Your task to perform on an android device: Open Chrome and go to settings Image 0: 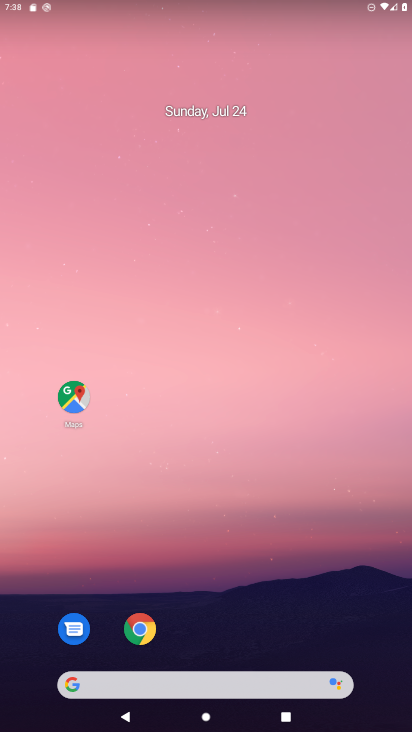
Step 0: drag from (363, 629) to (167, 35)
Your task to perform on an android device: Open Chrome and go to settings Image 1: 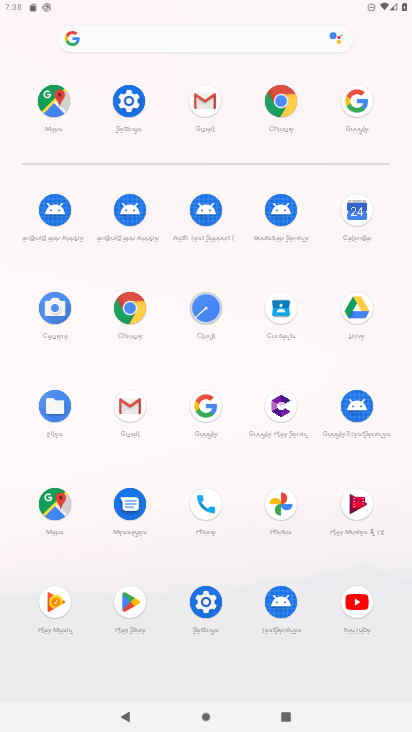
Step 1: click (122, 318)
Your task to perform on an android device: Open Chrome and go to settings Image 2: 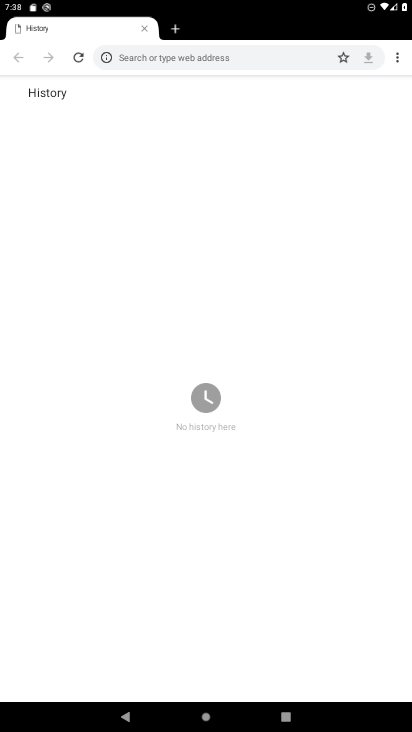
Step 2: click (392, 58)
Your task to perform on an android device: Open Chrome and go to settings Image 3: 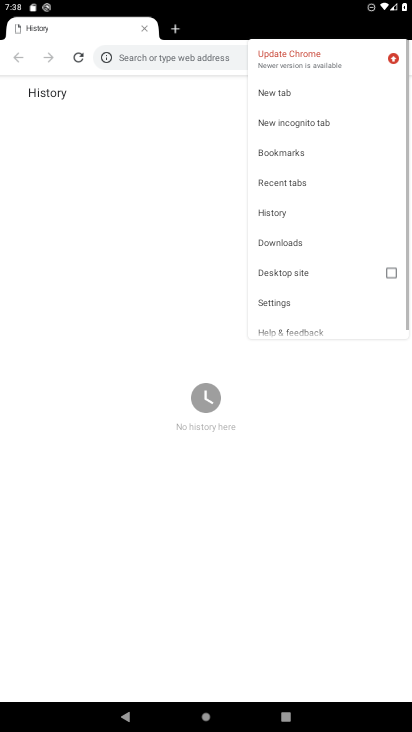
Step 3: click (287, 302)
Your task to perform on an android device: Open Chrome and go to settings Image 4: 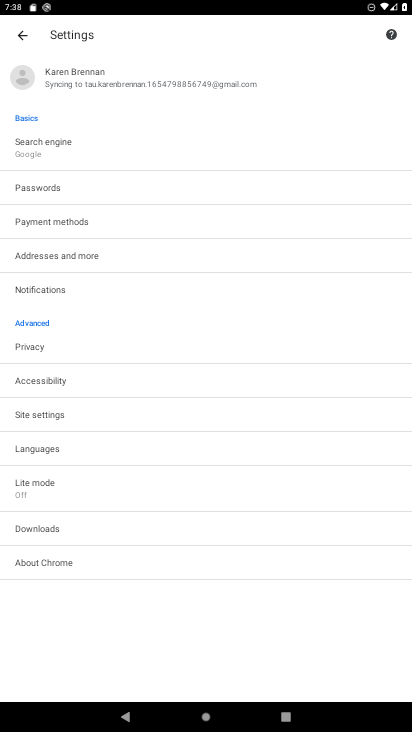
Step 4: task complete